Your task to perform on an android device: turn off smart reply in the gmail app Image 0: 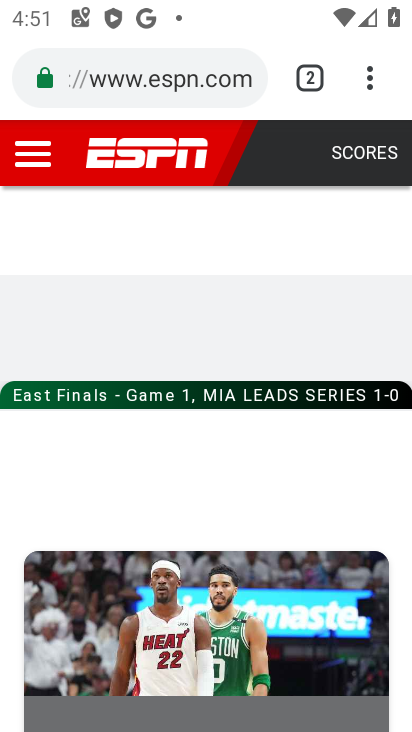
Step 0: press back button
Your task to perform on an android device: turn off smart reply in the gmail app Image 1: 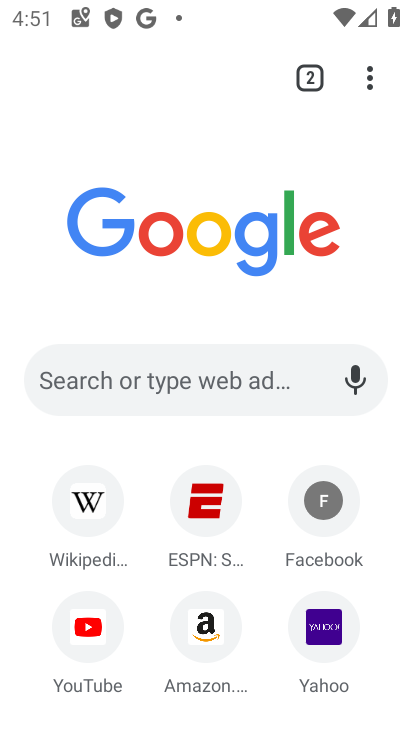
Step 1: press back button
Your task to perform on an android device: turn off smart reply in the gmail app Image 2: 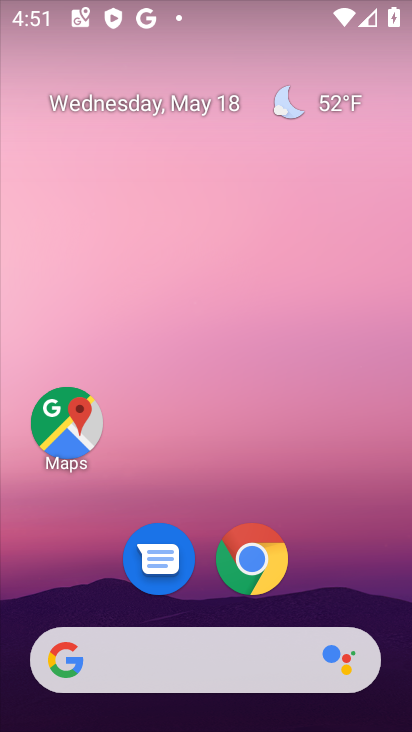
Step 2: drag from (233, 608) to (295, 32)
Your task to perform on an android device: turn off smart reply in the gmail app Image 3: 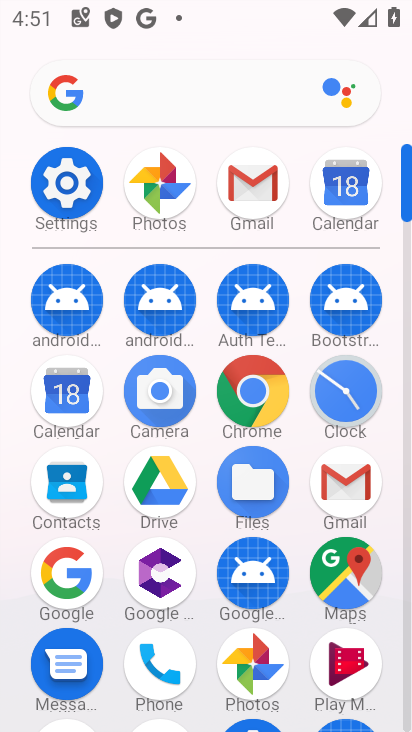
Step 3: click (252, 176)
Your task to perform on an android device: turn off smart reply in the gmail app Image 4: 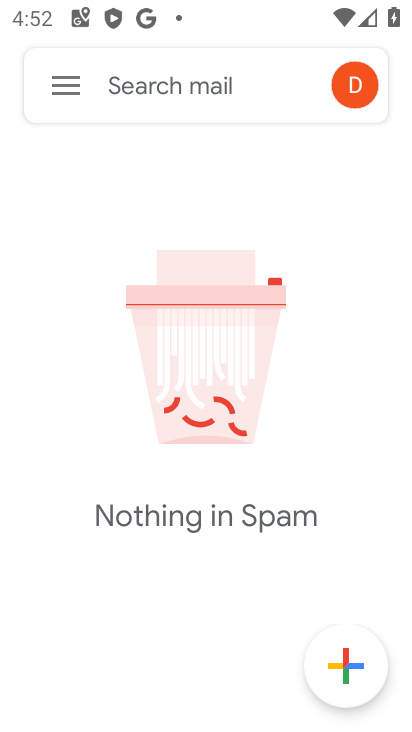
Step 4: click (58, 80)
Your task to perform on an android device: turn off smart reply in the gmail app Image 5: 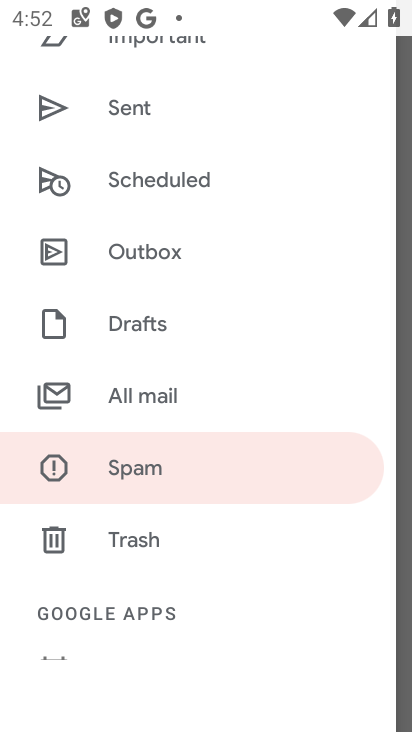
Step 5: drag from (179, 597) to (257, 49)
Your task to perform on an android device: turn off smart reply in the gmail app Image 6: 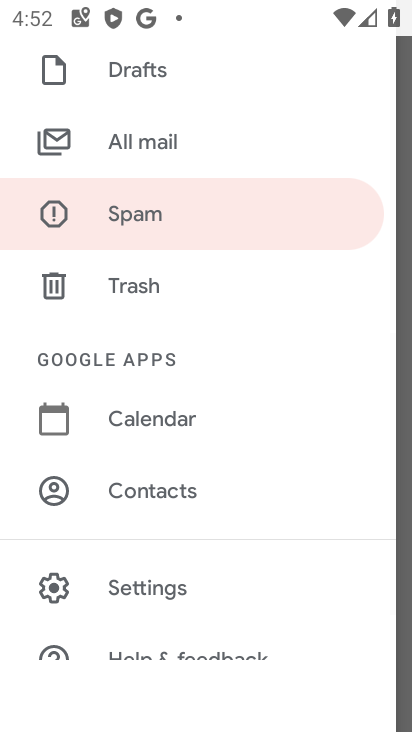
Step 6: drag from (146, 529) to (213, 129)
Your task to perform on an android device: turn off smart reply in the gmail app Image 7: 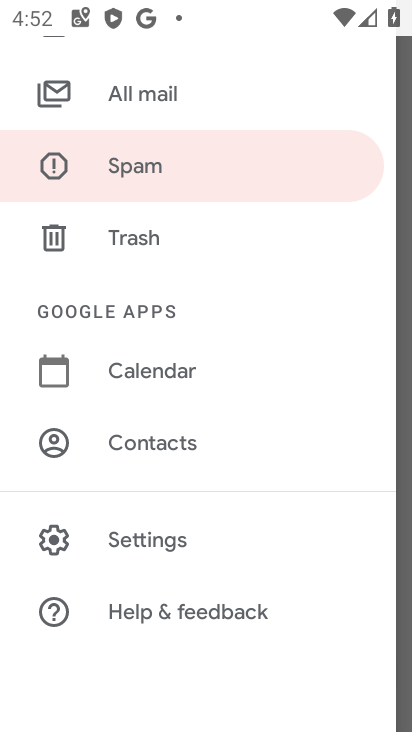
Step 7: click (145, 544)
Your task to perform on an android device: turn off smart reply in the gmail app Image 8: 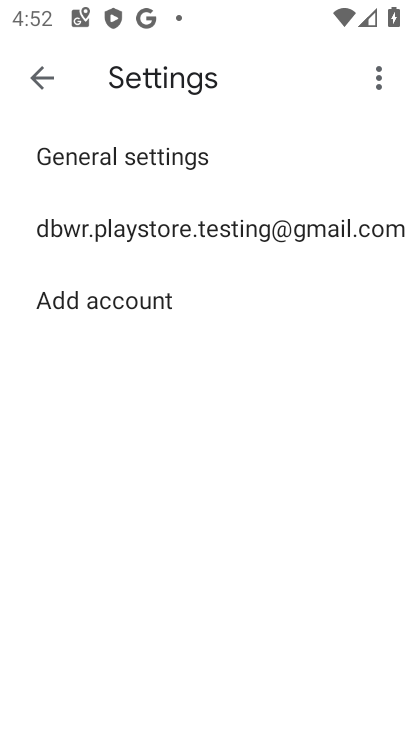
Step 8: click (116, 232)
Your task to perform on an android device: turn off smart reply in the gmail app Image 9: 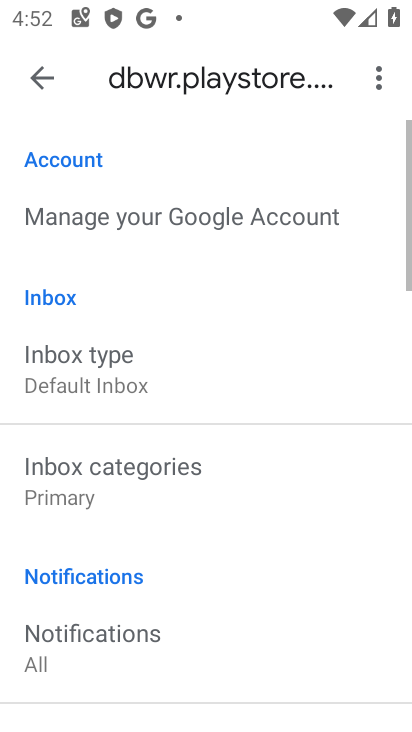
Step 9: drag from (147, 211) to (160, 117)
Your task to perform on an android device: turn off smart reply in the gmail app Image 10: 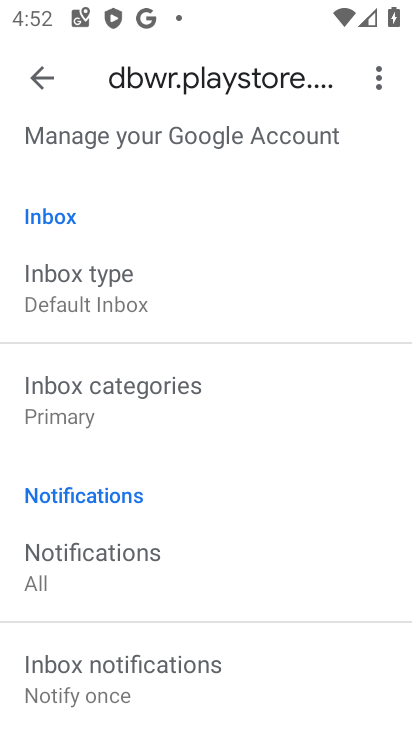
Step 10: drag from (132, 647) to (201, 107)
Your task to perform on an android device: turn off smart reply in the gmail app Image 11: 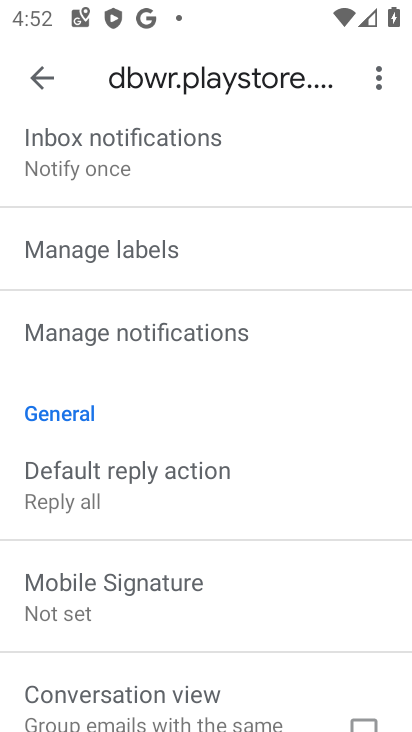
Step 11: drag from (115, 630) to (186, 280)
Your task to perform on an android device: turn off smart reply in the gmail app Image 12: 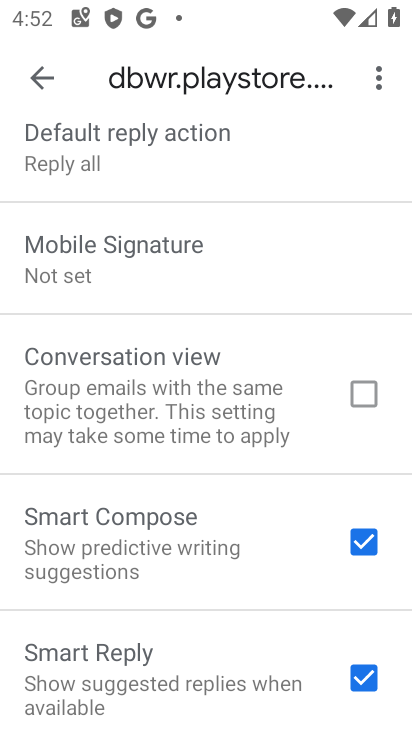
Step 12: click (366, 670)
Your task to perform on an android device: turn off smart reply in the gmail app Image 13: 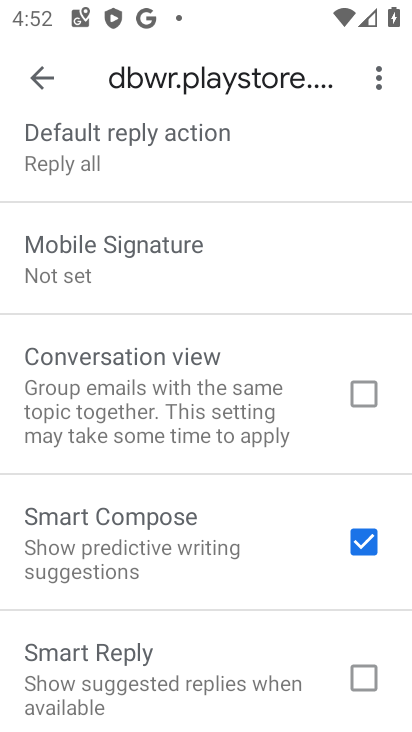
Step 13: task complete